Your task to perform on an android device: Go to eBay Image 0: 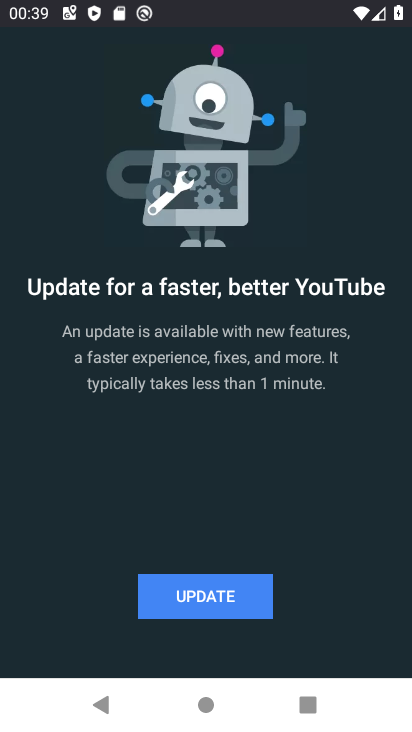
Step 0: press home button
Your task to perform on an android device: Go to eBay Image 1: 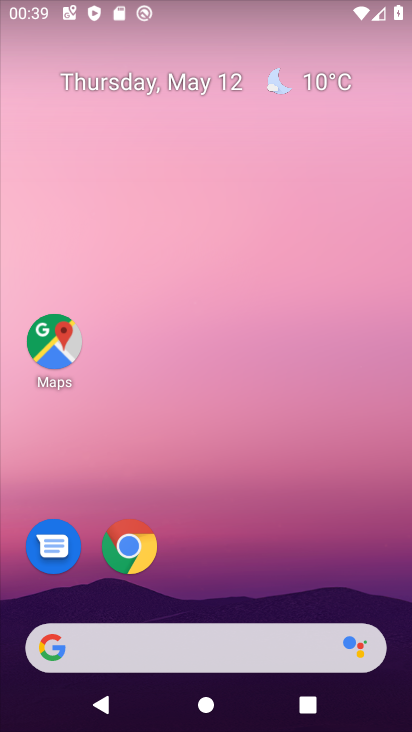
Step 1: drag from (130, 599) to (113, 225)
Your task to perform on an android device: Go to eBay Image 2: 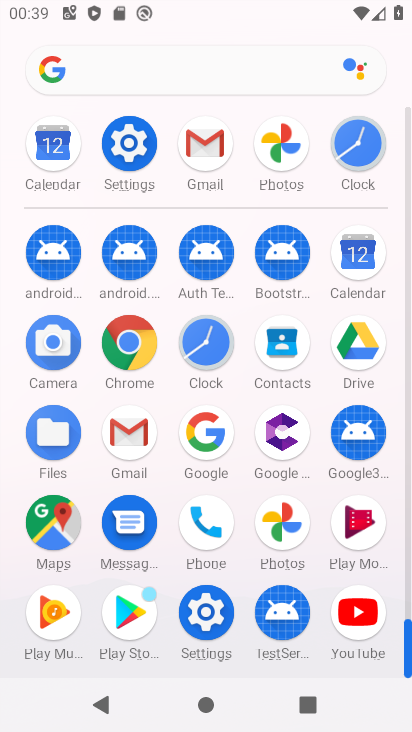
Step 2: click (137, 346)
Your task to perform on an android device: Go to eBay Image 3: 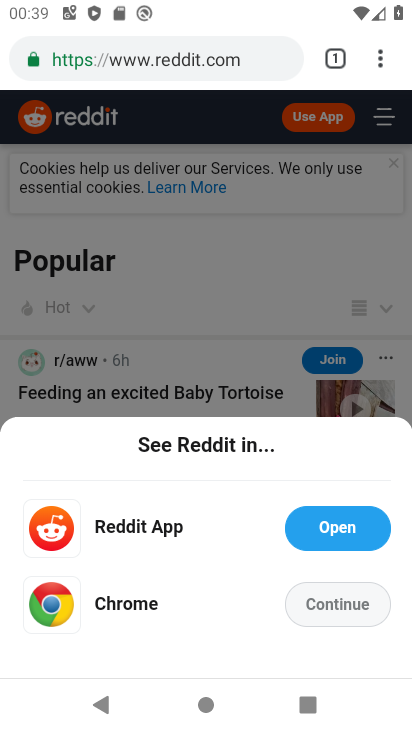
Step 3: click (100, 41)
Your task to perform on an android device: Go to eBay Image 4: 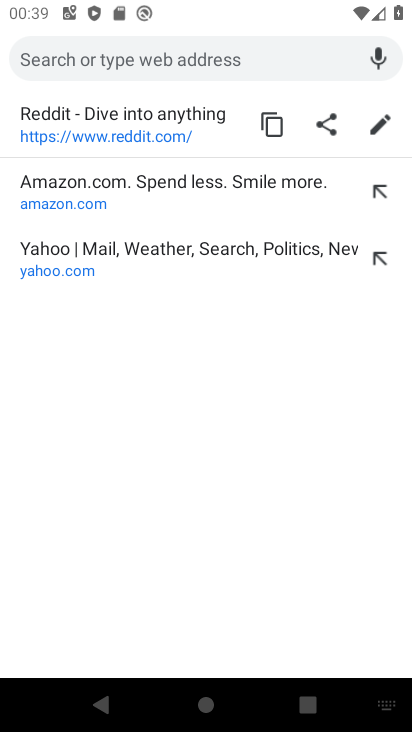
Step 4: type "ebay"
Your task to perform on an android device: Go to eBay Image 5: 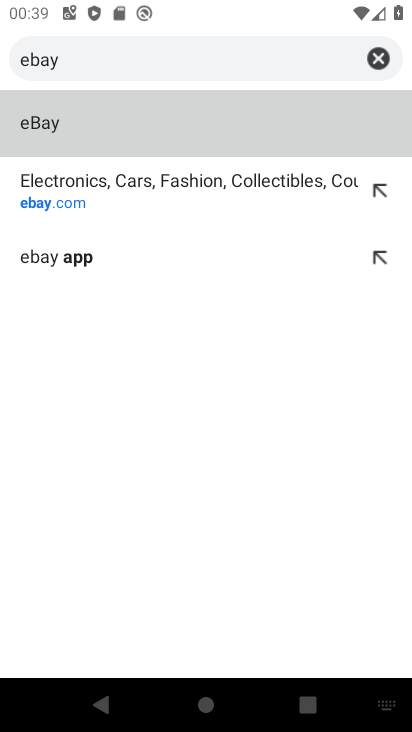
Step 5: click (109, 137)
Your task to perform on an android device: Go to eBay Image 6: 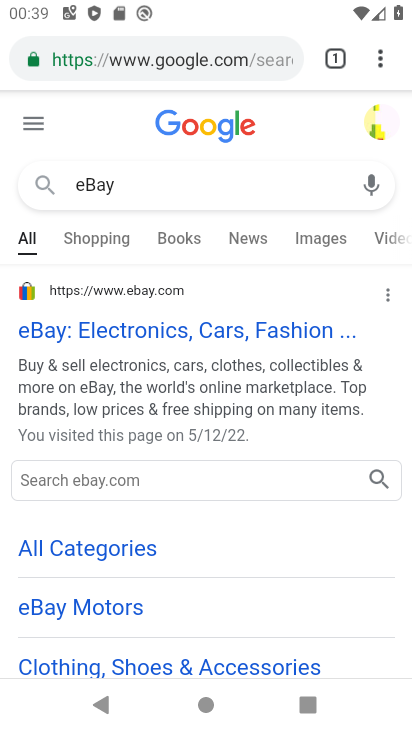
Step 6: task complete